Your task to perform on an android device: open app "Facebook Lite" (install if not already installed), go to login, and select forgot password Image 0: 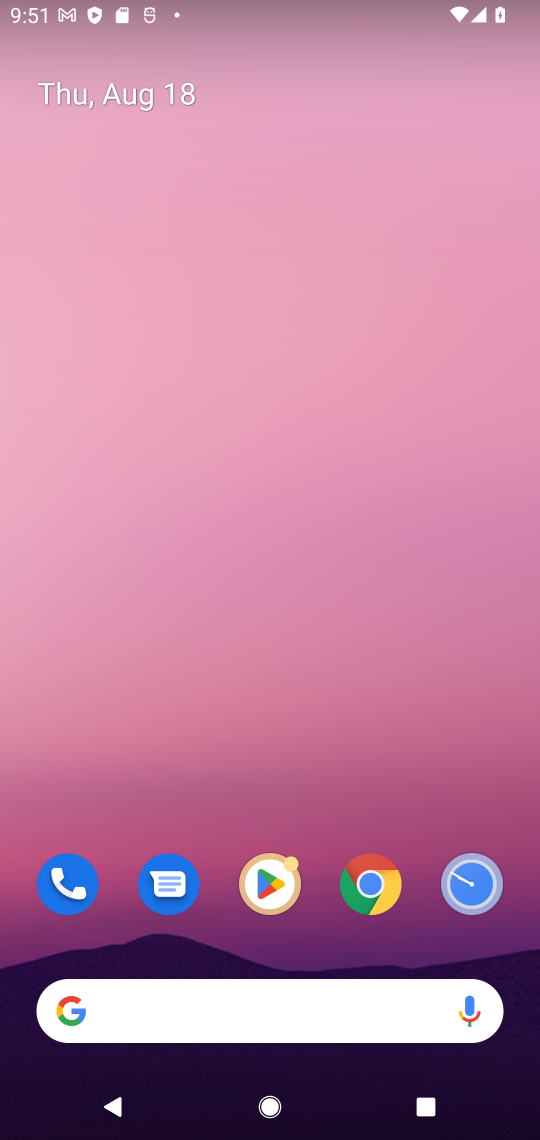
Step 0: drag from (335, 955) to (336, 202)
Your task to perform on an android device: open app "Facebook Lite" (install if not already installed), go to login, and select forgot password Image 1: 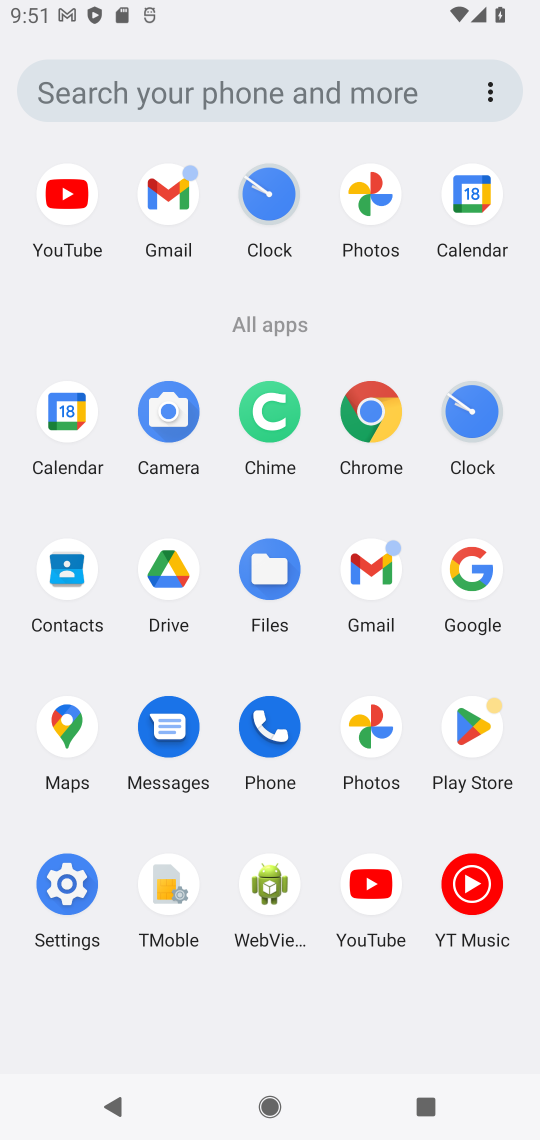
Step 1: click (453, 741)
Your task to perform on an android device: open app "Facebook Lite" (install if not already installed), go to login, and select forgot password Image 2: 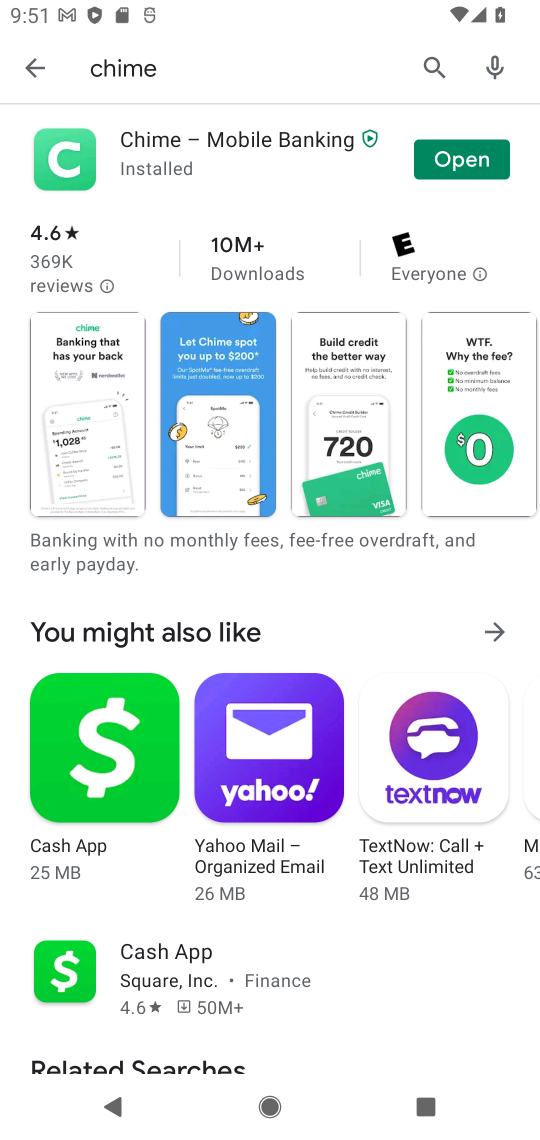
Step 2: click (437, 77)
Your task to perform on an android device: open app "Facebook Lite" (install if not already installed), go to login, and select forgot password Image 3: 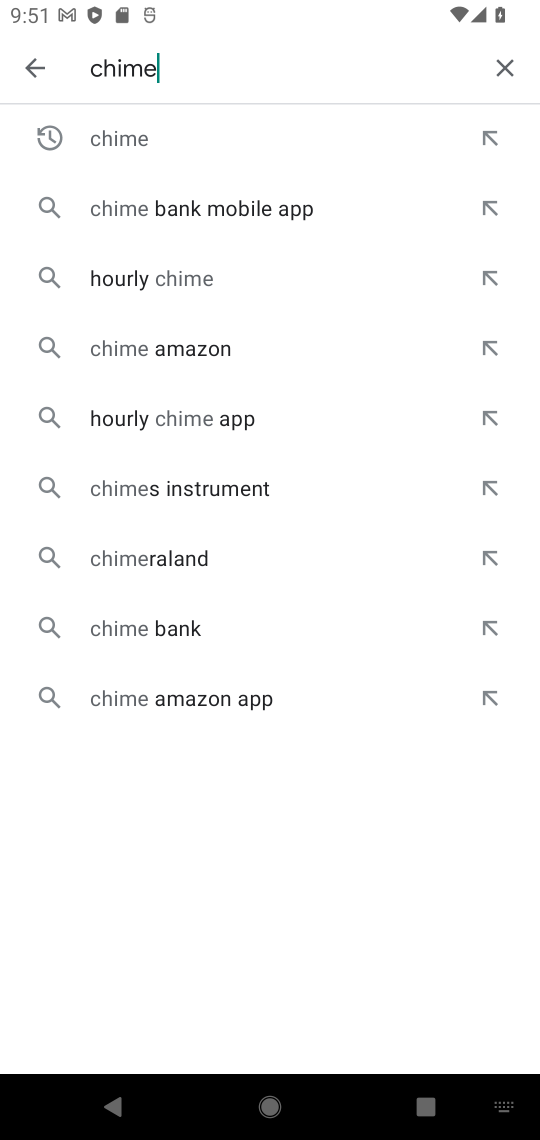
Step 3: click (499, 70)
Your task to perform on an android device: open app "Facebook Lite" (install if not already installed), go to login, and select forgot password Image 4: 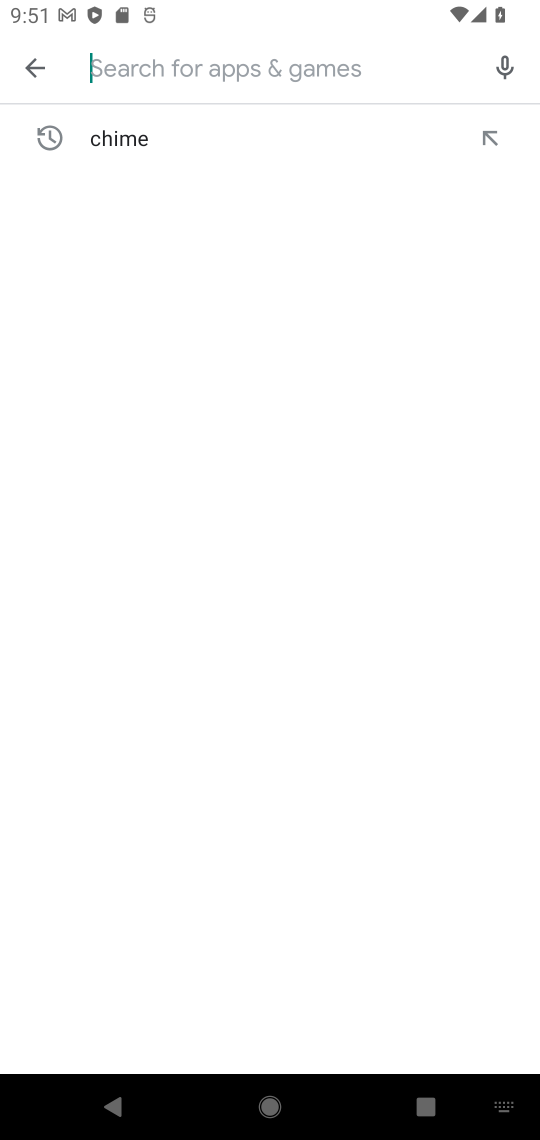
Step 4: type "facebook lite"
Your task to perform on an android device: open app "Facebook Lite" (install if not already installed), go to login, and select forgot password Image 5: 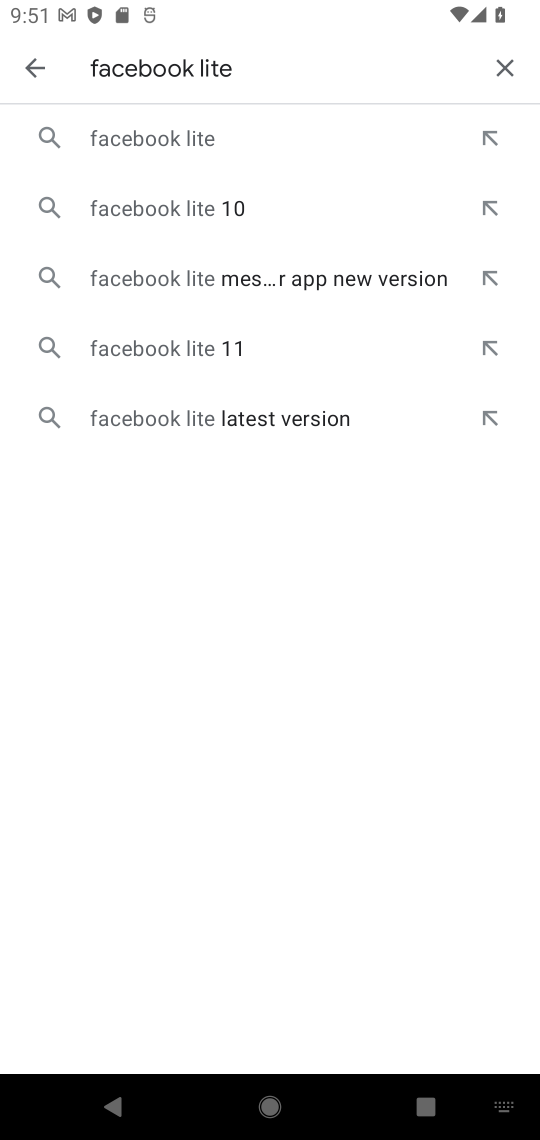
Step 5: click (149, 153)
Your task to perform on an android device: open app "Facebook Lite" (install if not already installed), go to login, and select forgot password Image 6: 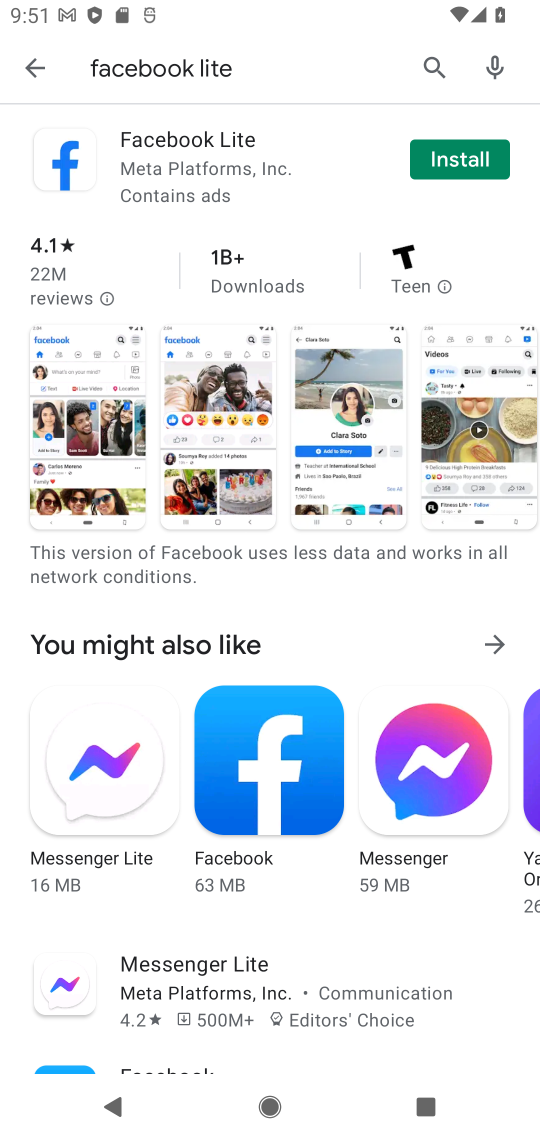
Step 6: click (482, 153)
Your task to perform on an android device: open app "Facebook Lite" (install if not already installed), go to login, and select forgot password Image 7: 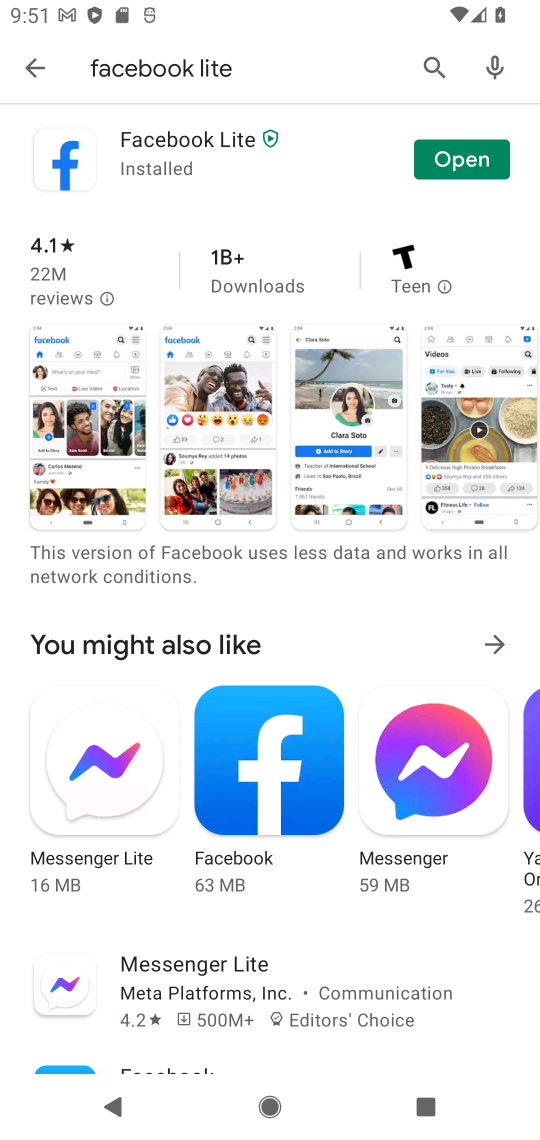
Step 7: click (464, 176)
Your task to perform on an android device: open app "Facebook Lite" (install if not already installed), go to login, and select forgot password Image 8: 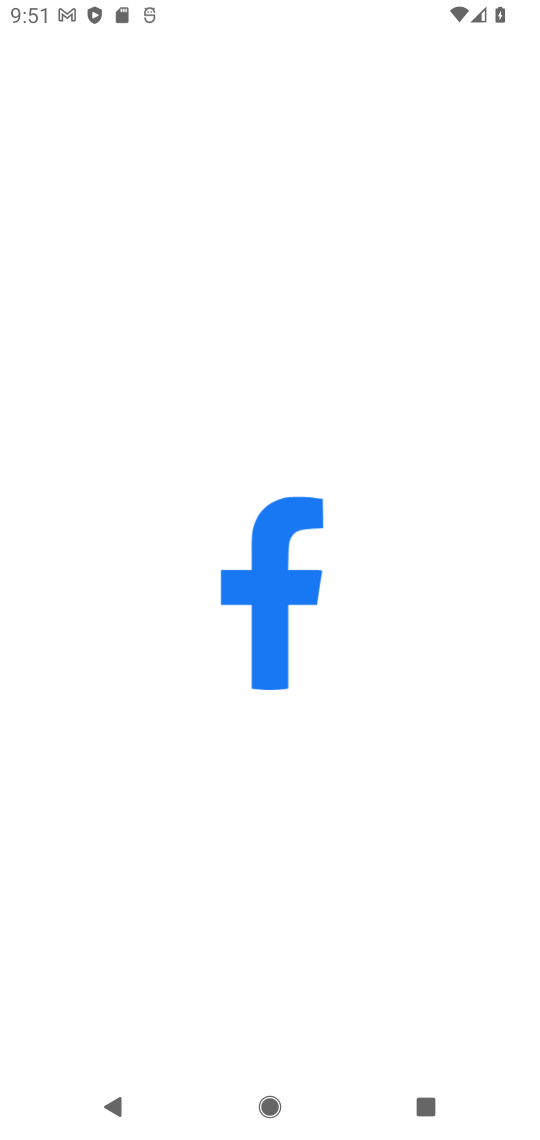
Step 8: task complete